Your task to perform on an android device: Show the shopping cart on amazon. Image 0: 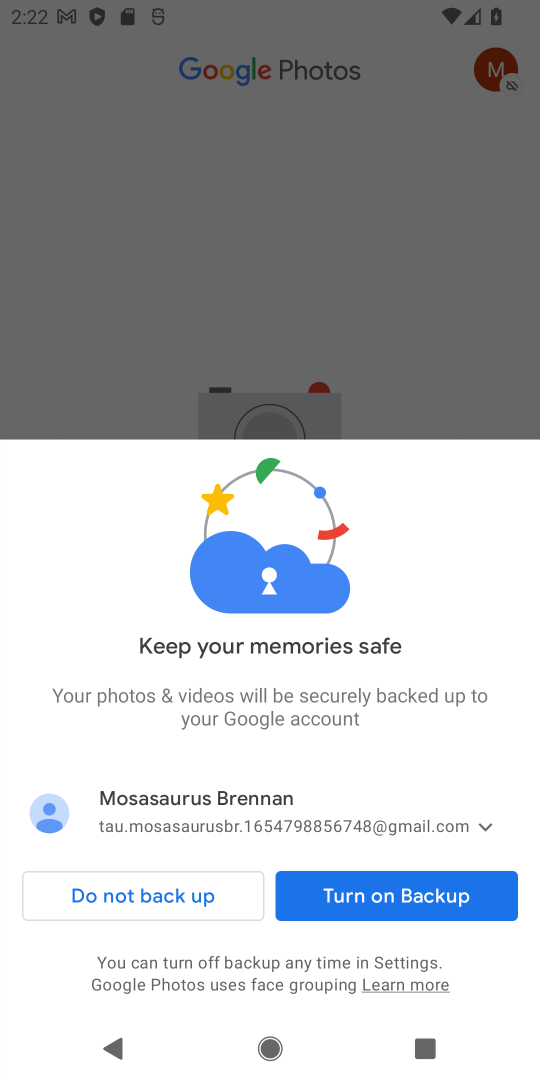
Step 0: press home button
Your task to perform on an android device: Show the shopping cart on amazon. Image 1: 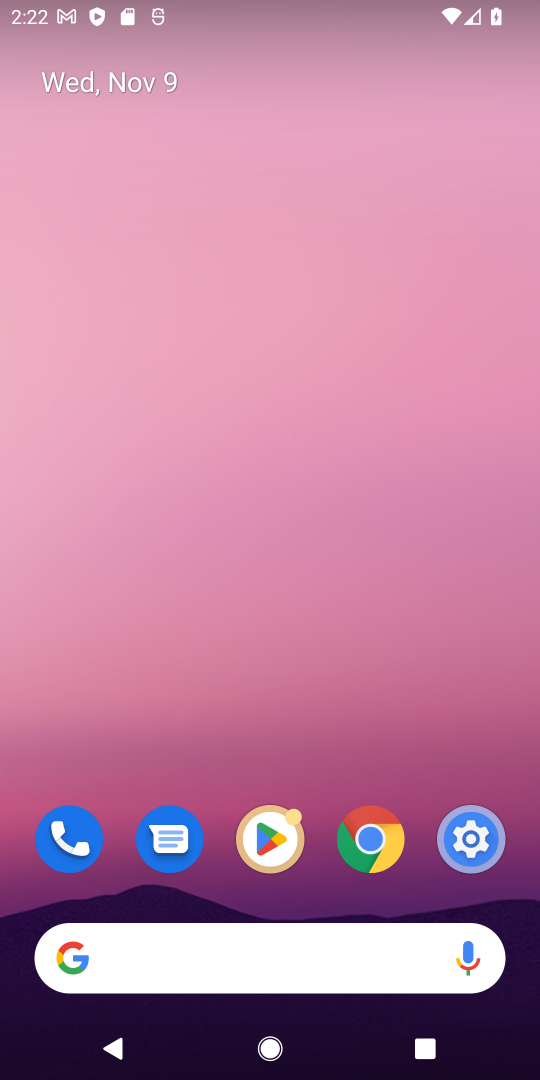
Step 1: click (377, 966)
Your task to perform on an android device: Show the shopping cart on amazon. Image 2: 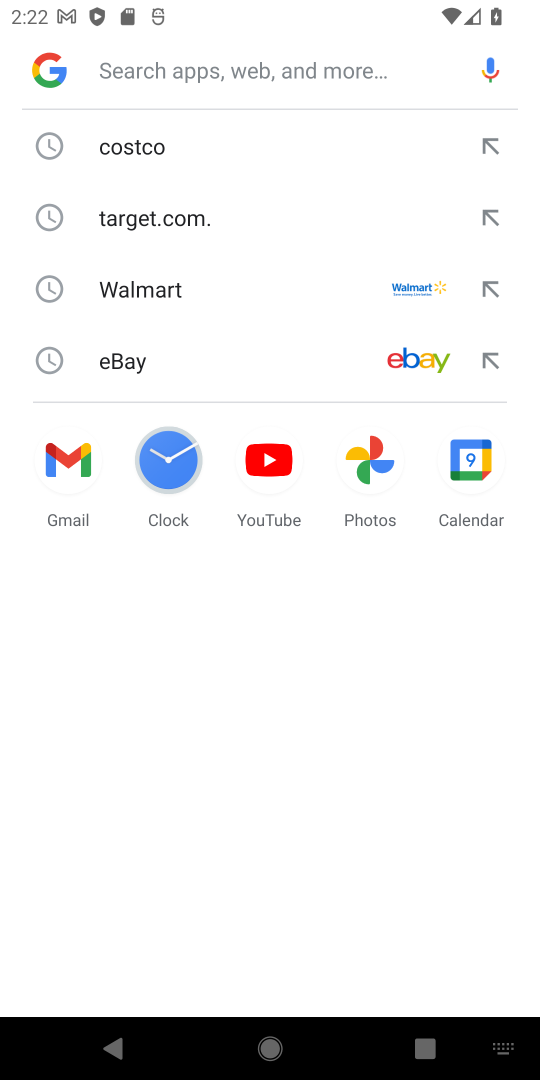
Step 2: type "amazon"
Your task to perform on an android device: Show the shopping cart on amazon. Image 3: 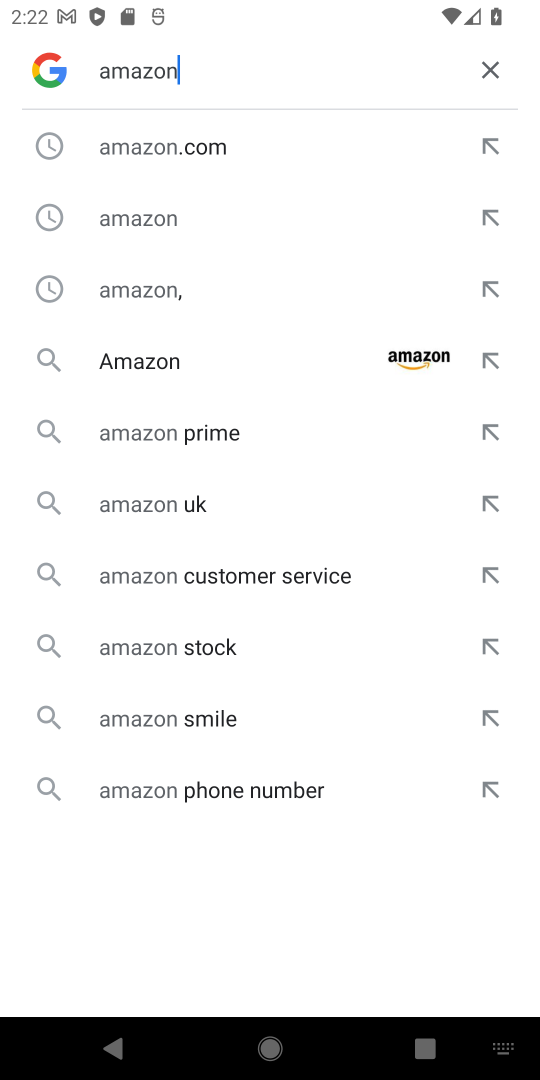
Step 3: click (169, 160)
Your task to perform on an android device: Show the shopping cart on amazon. Image 4: 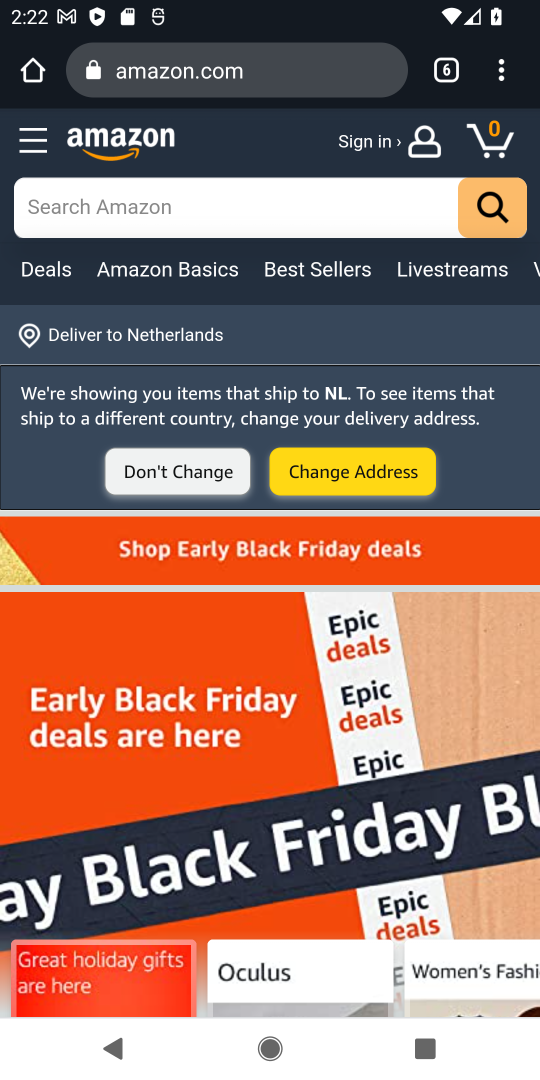
Step 4: click (150, 218)
Your task to perform on an android device: Show the shopping cart on amazon. Image 5: 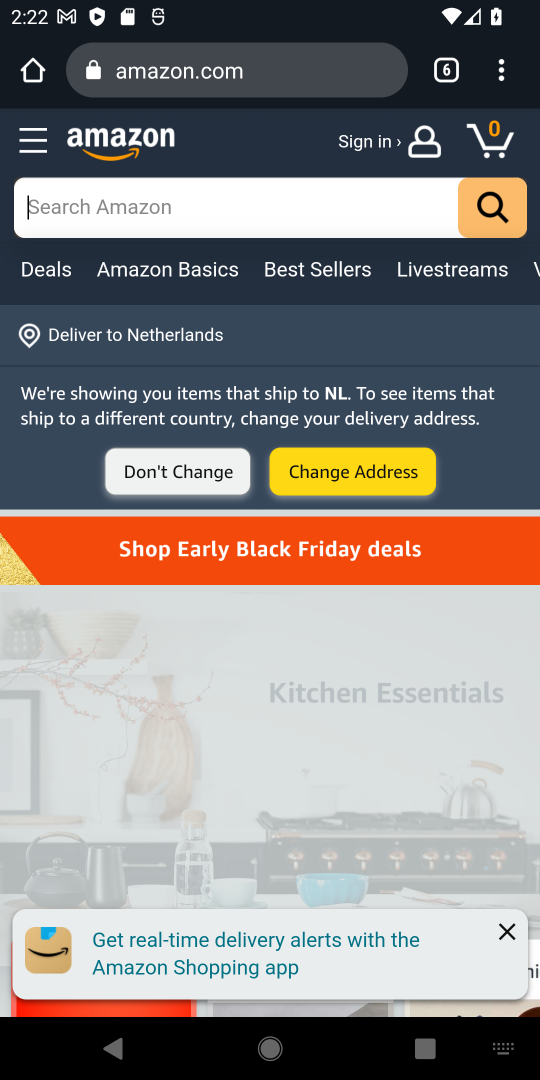
Step 5: click (482, 136)
Your task to perform on an android device: Show the shopping cart on amazon. Image 6: 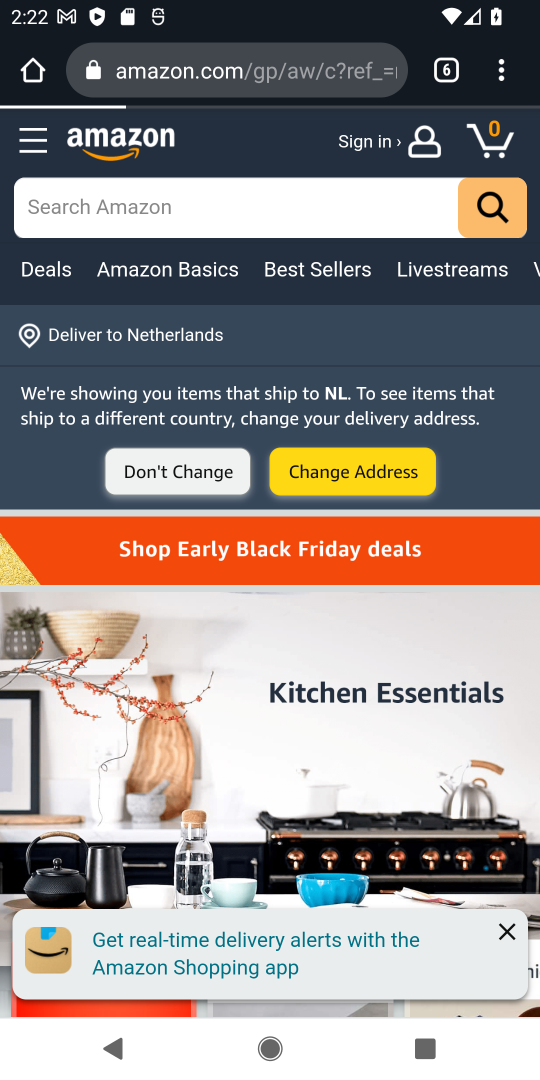
Step 6: task complete